Your task to perform on an android device: turn on the 24-hour format for clock Image 0: 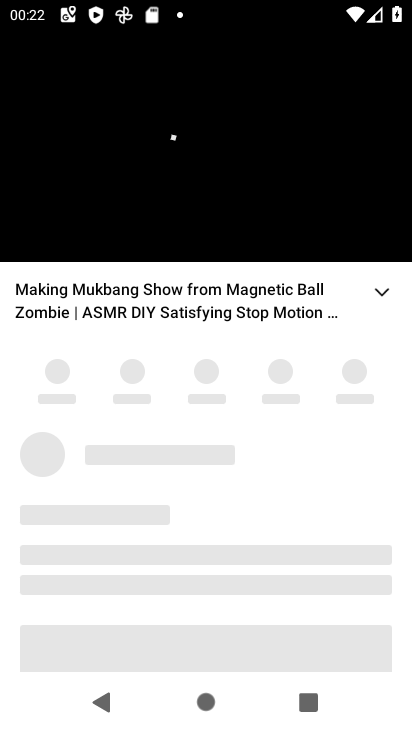
Step 0: press home button
Your task to perform on an android device: turn on the 24-hour format for clock Image 1: 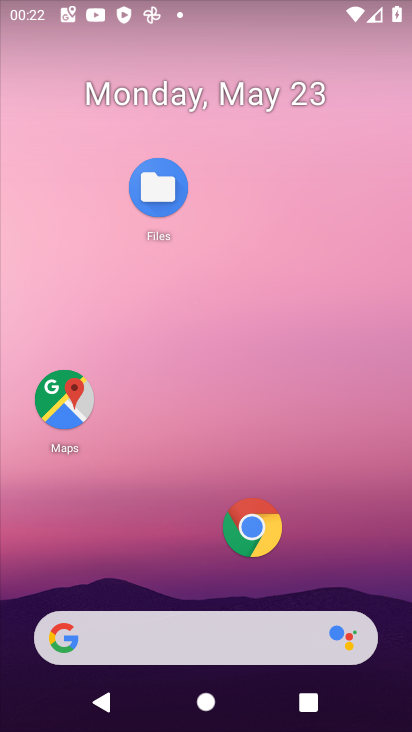
Step 1: drag from (189, 555) to (191, 105)
Your task to perform on an android device: turn on the 24-hour format for clock Image 2: 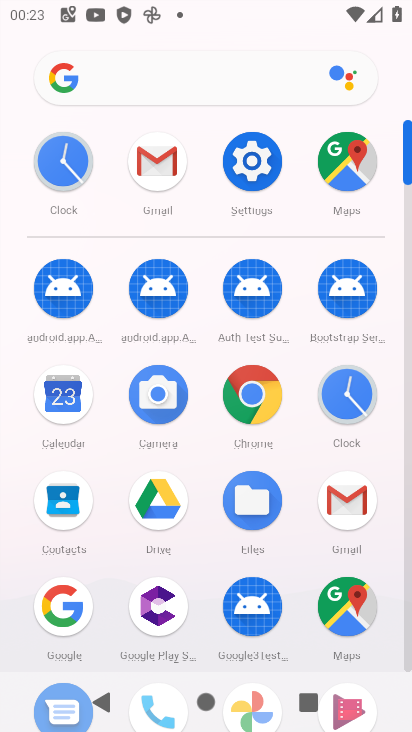
Step 2: click (339, 393)
Your task to perform on an android device: turn on the 24-hour format for clock Image 3: 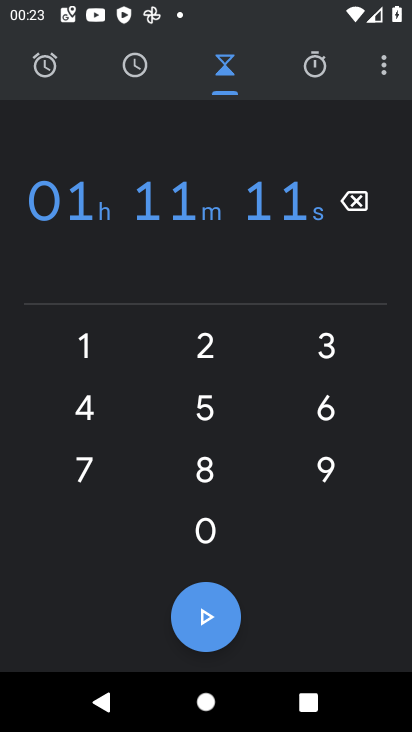
Step 3: click (383, 68)
Your task to perform on an android device: turn on the 24-hour format for clock Image 4: 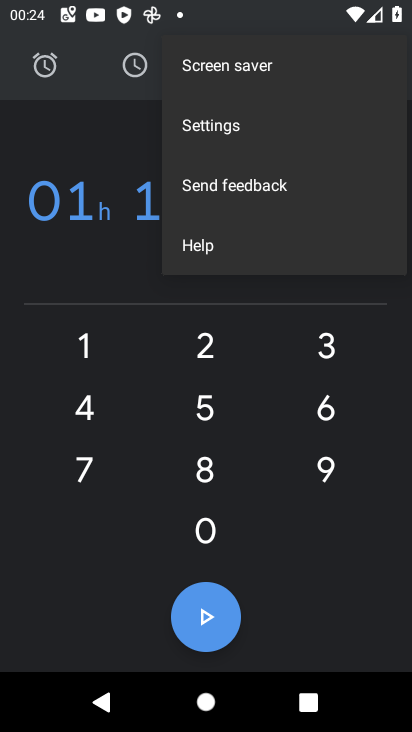
Step 4: click (245, 111)
Your task to perform on an android device: turn on the 24-hour format for clock Image 5: 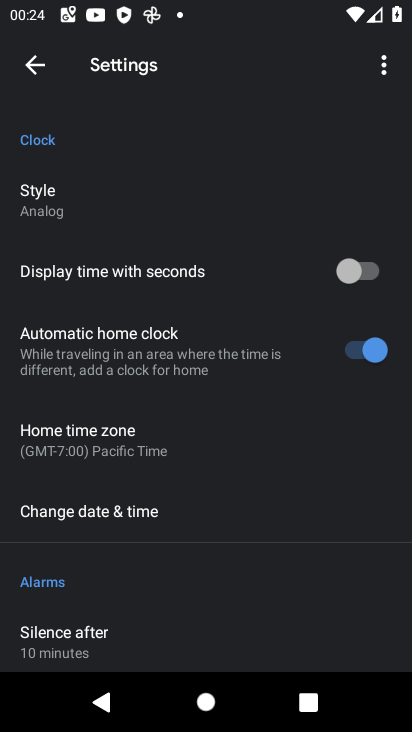
Step 5: drag from (232, 460) to (213, 120)
Your task to perform on an android device: turn on the 24-hour format for clock Image 6: 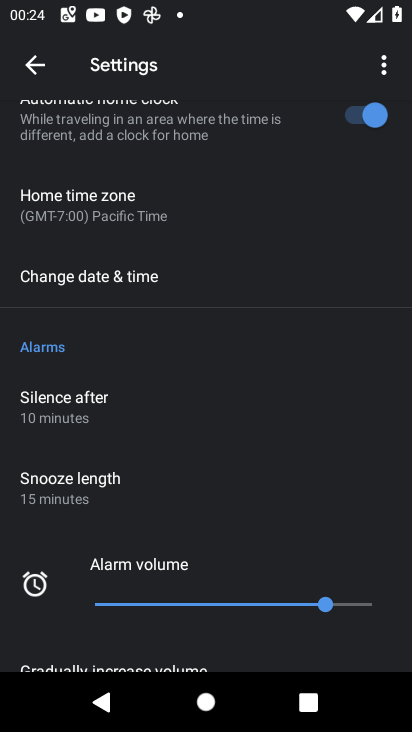
Step 6: click (96, 269)
Your task to perform on an android device: turn on the 24-hour format for clock Image 7: 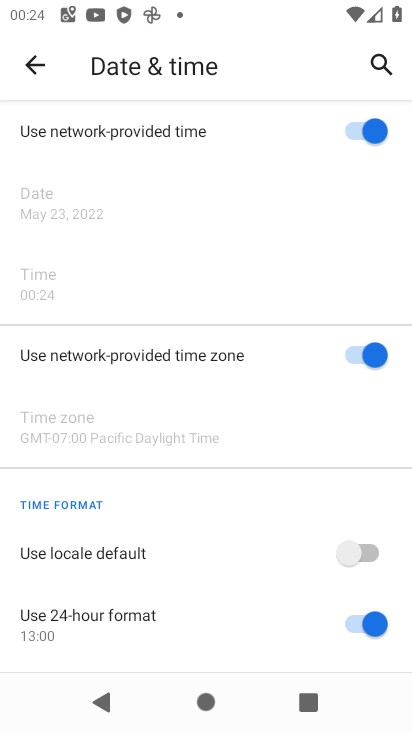
Step 7: task complete